Your task to perform on an android device: Go to ESPN.com Image 0: 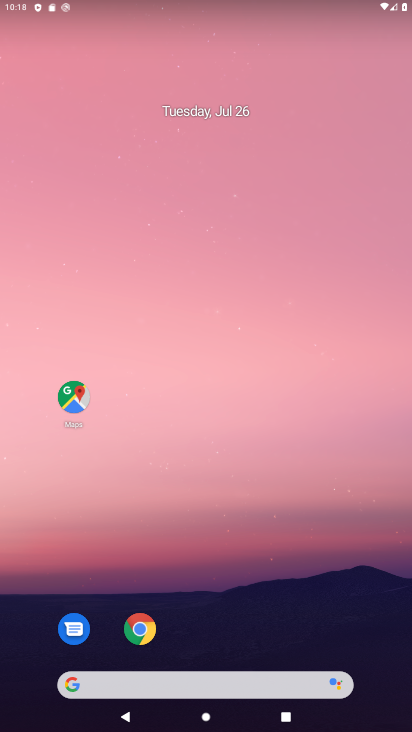
Step 0: click (144, 641)
Your task to perform on an android device: Go to ESPN.com Image 1: 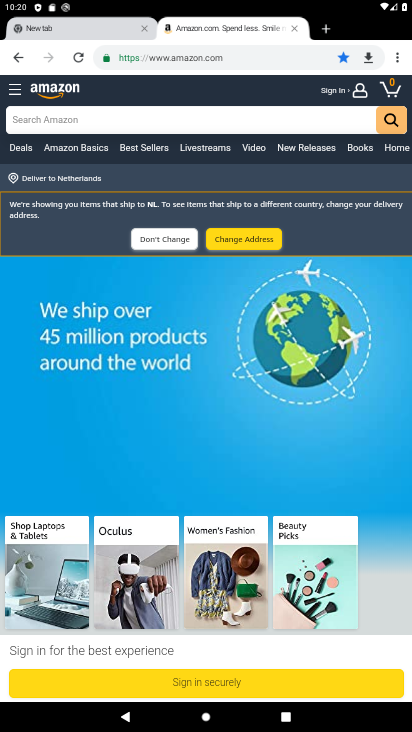
Step 1: click (318, 27)
Your task to perform on an android device: Go to ESPN.com Image 2: 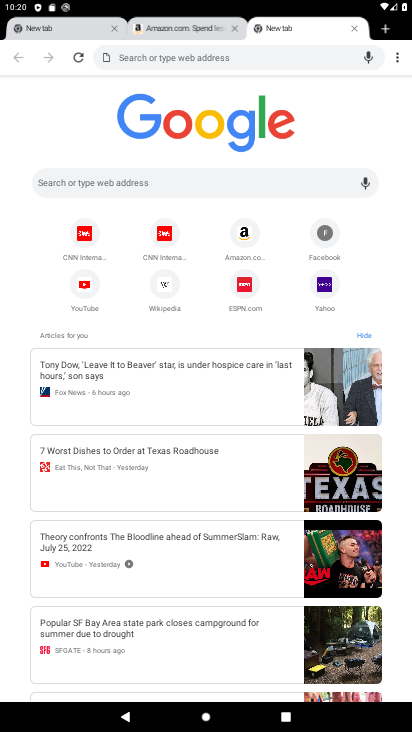
Step 2: click (254, 279)
Your task to perform on an android device: Go to ESPN.com Image 3: 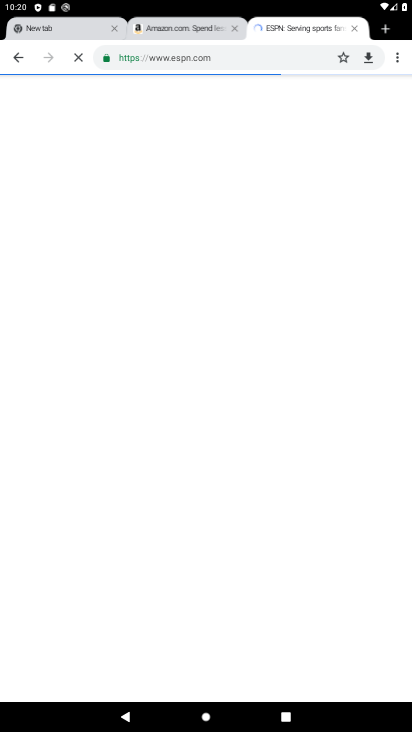
Step 3: task complete